Your task to perform on an android device: Go to wifi settings Image 0: 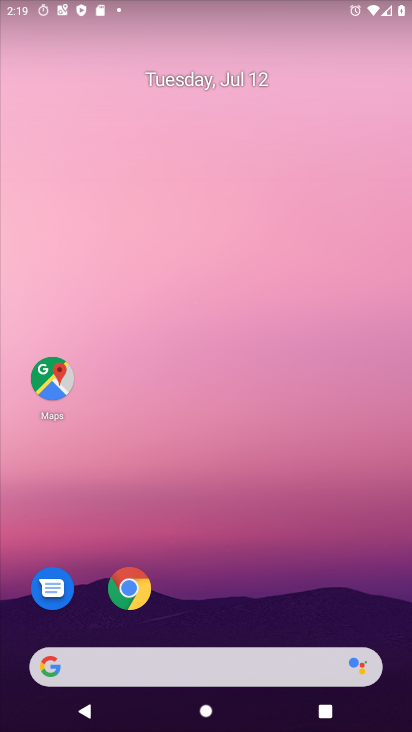
Step 0: click (270, 49)
Your task to perform on an android device: Go to wifi settings Image 1: 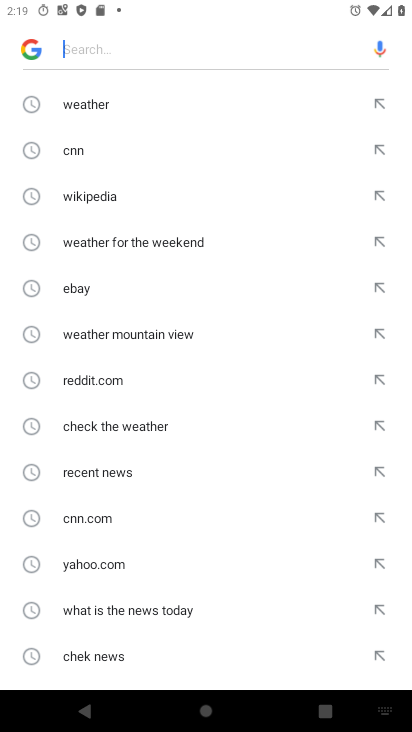
Step 1: press home button
Your task to perform on an android device: Go to wifi settings Image 2: 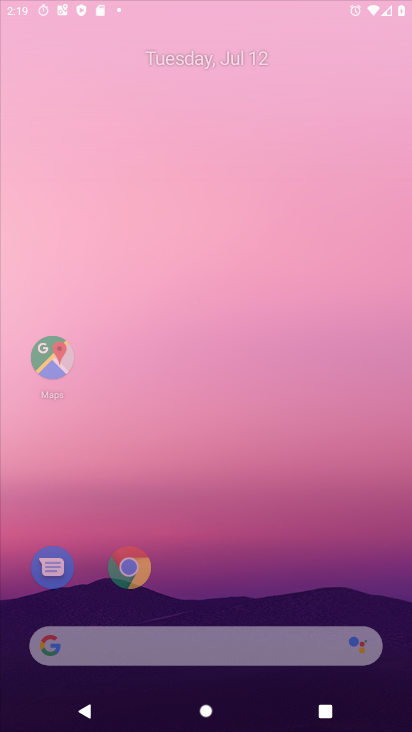
Step 2: drag from (183, 614) to (240, 50)
Your task to perform on an android device: Go to wifi settings Image 3: 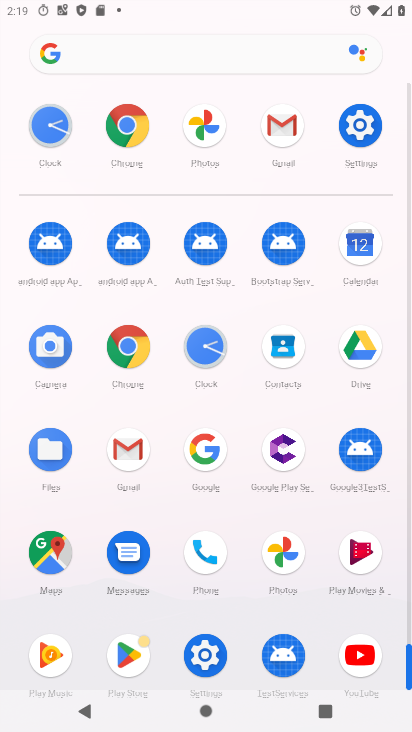
Step 3: click (362, 123)
Your task to perform on an android device: Go to wifi settings Image 4: 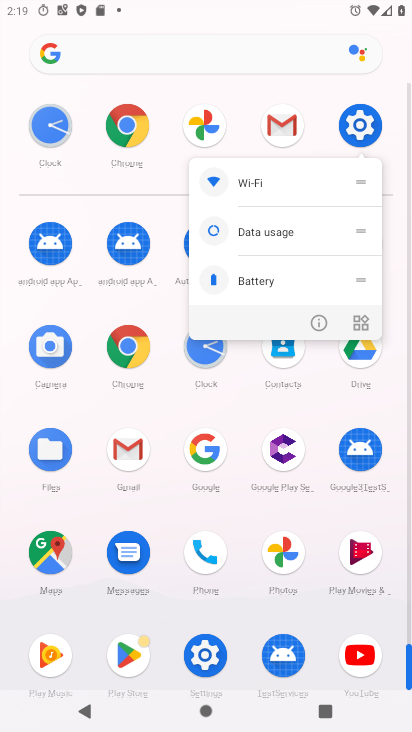
Step 4: click (321, 317)
Your task to perform on an android device: Go to wifi settings Image 5: 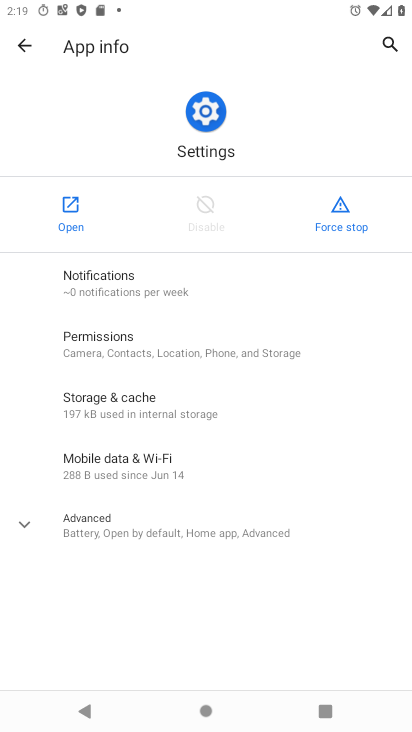
Step 5: click (45, 195)
Your task to perform on an android device: Go to wifi settings Image 6: 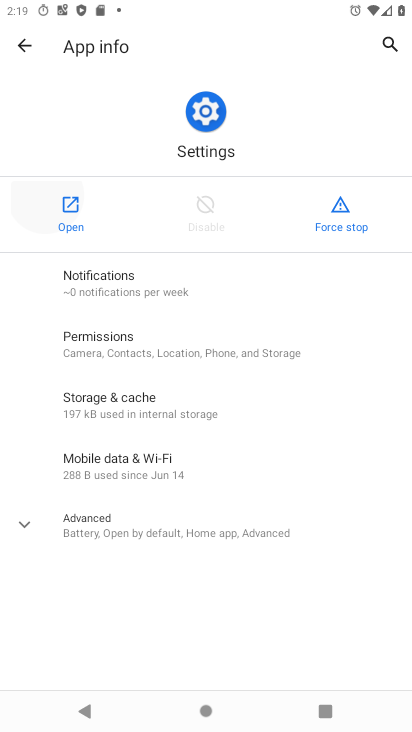
Step 6: click (51, 197)
Your task to perform on an android device: Go to wifi settings Image 7: 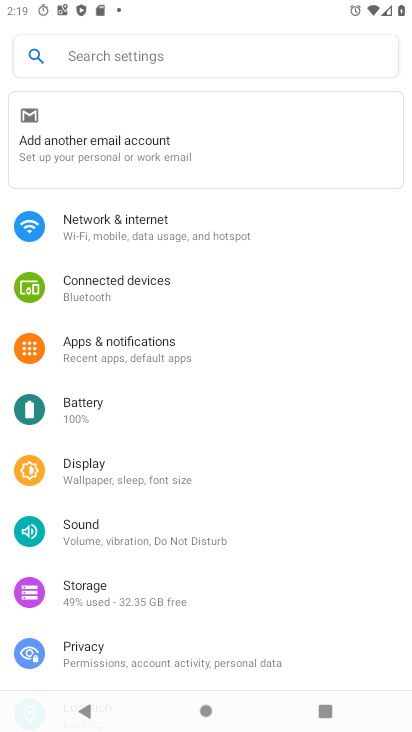
Step 7: click (49, 243)
Your task to perform on an android device: Go to wifi settings Image 8: 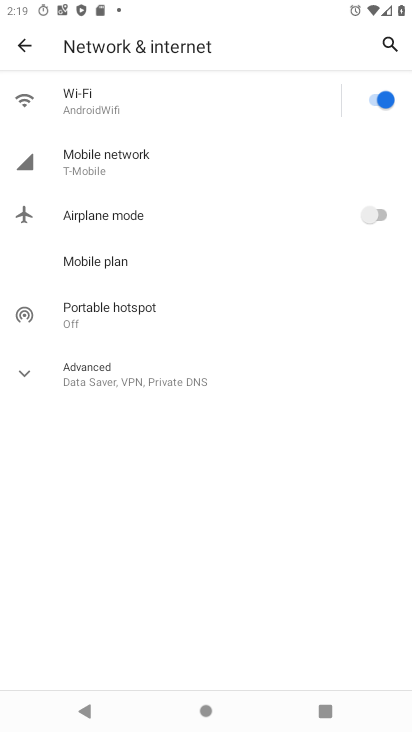
Step 8: click (139, 115)
Your task to perform on an android device: Go to wifi settings Image 9: 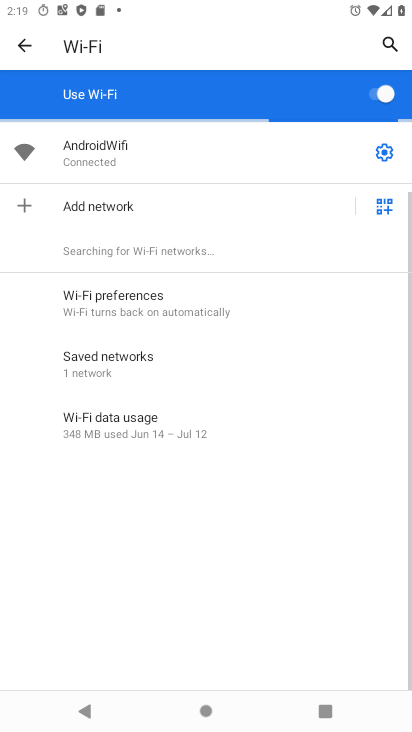
Step 9: click (376, 150)
Your task to perform on an android device: Go to wifi settings Image 10: 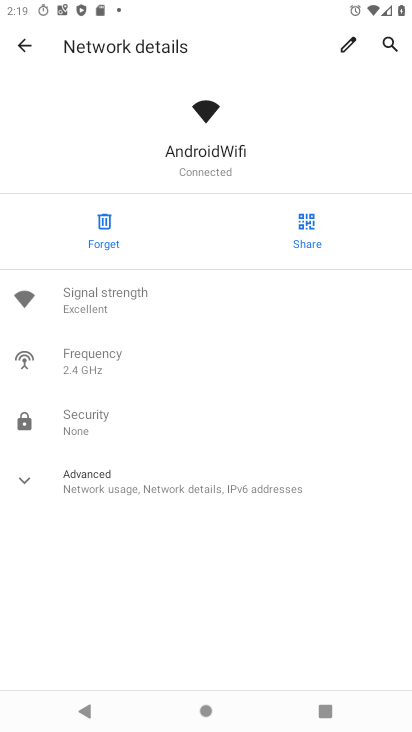
Step 10: task complete